Your task to perform on an android device: add a label to a message in the gmail app Image 0: 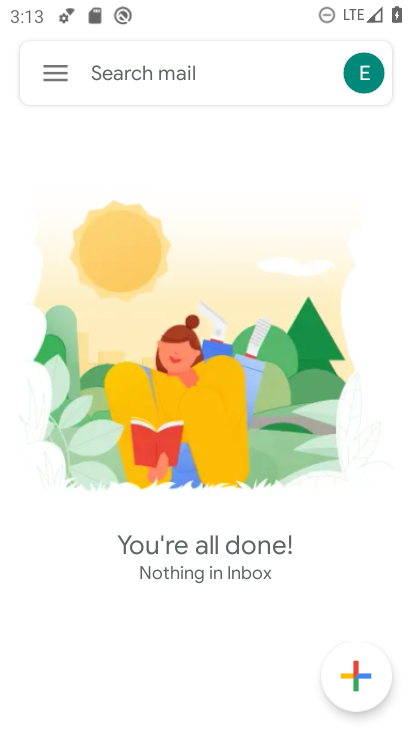
Step 0: press home button
Your task to perform on an android device: add a label to a message in the gmail app Image 1: 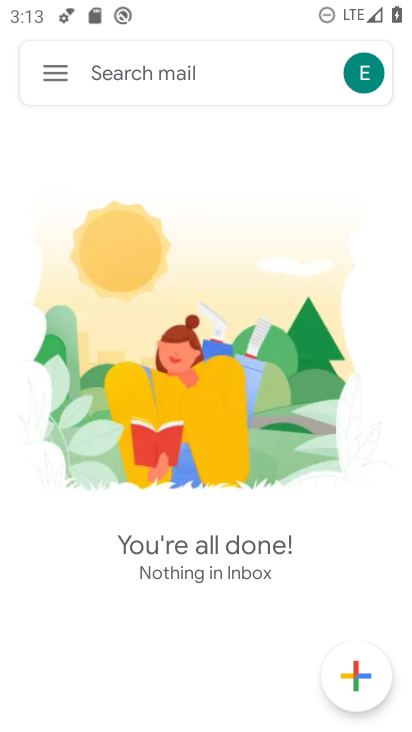
Step 1: press home button
Your task to perform on an android device: add a label to a message in the gmail app Image 2: 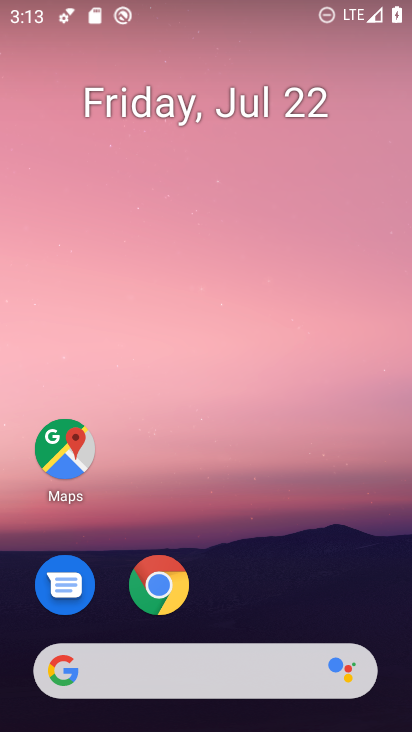
Step 2: drag from (253, 555) to (266, 22)
Your task to perform on an android device: add a label to a message in the gmail app Image 3: 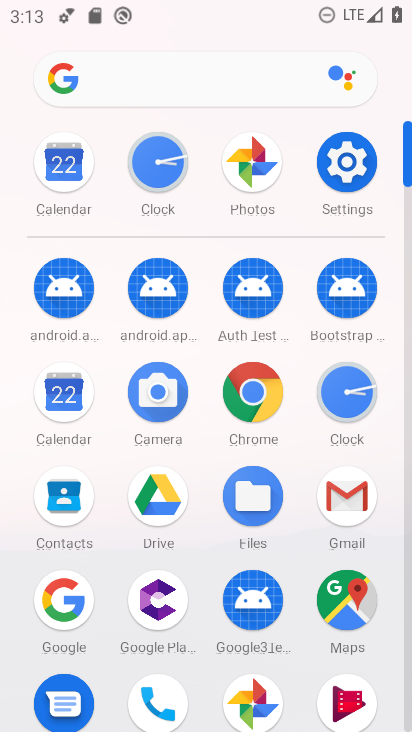
Step 3: click (348, 496)
Your task to perform on an android device: add a label to a message in the gmail app Image 4: 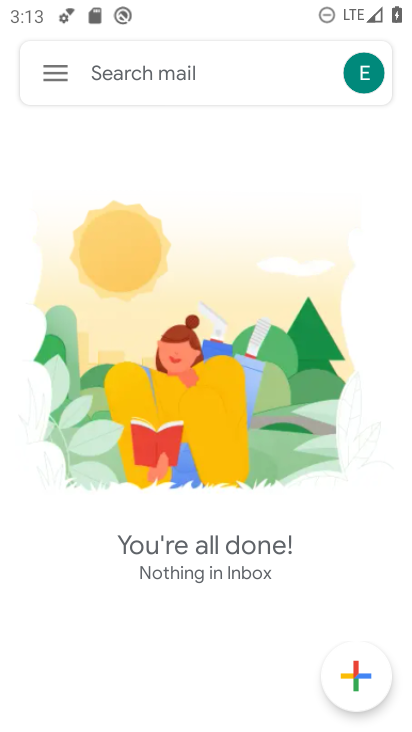
Step 4: click (54, 70)
Your task to perform on an android device: add a label to a message in the gmail app Image 5: 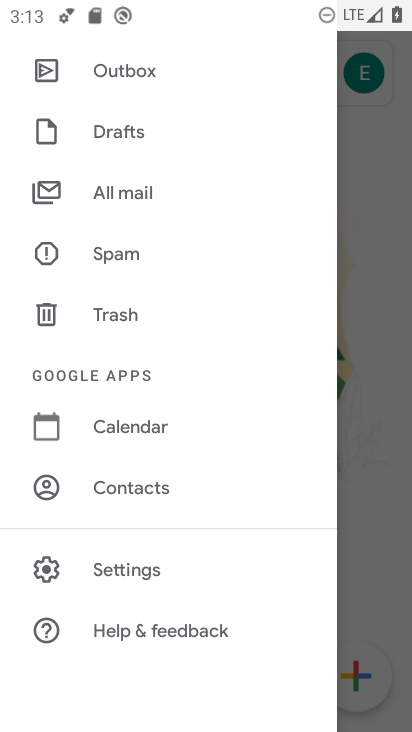
Step 5: click (129, 185)
Your task to perform on an android device: add a label to a message in the gmail app Image 6: 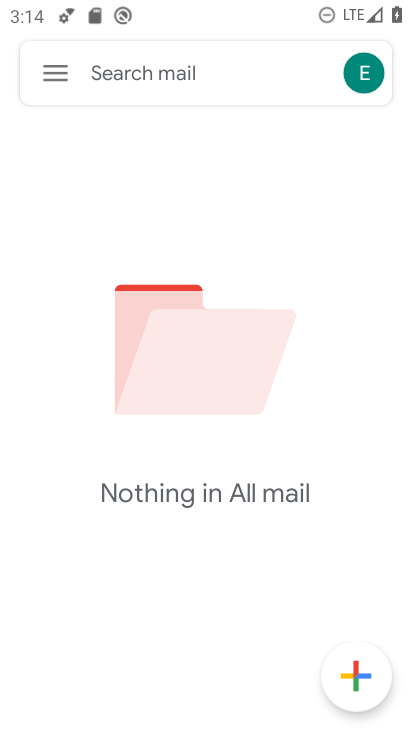
Step 6: task complete